Your task to perform on an android device: Open Google Image 0: 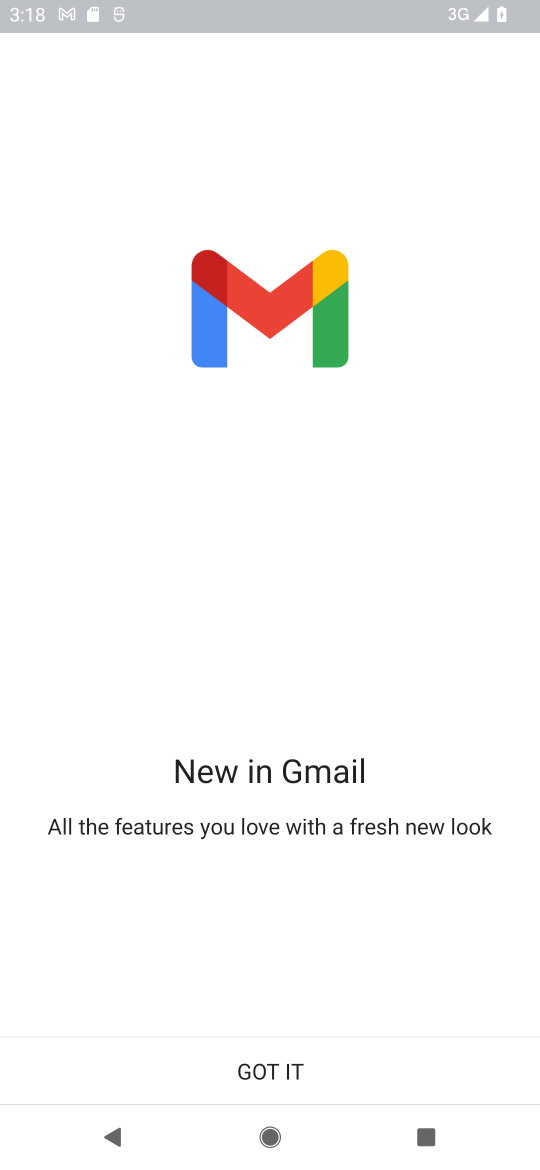
Step 0: press home button
Your task to perform on an android device: Open Google Image 1: 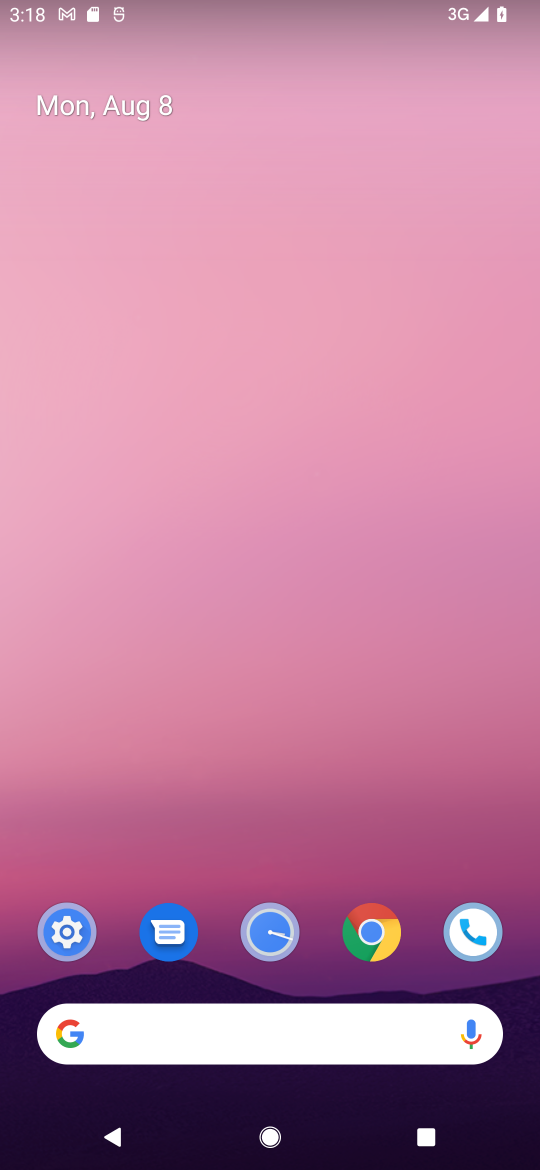
Step 1: drag from (351, 649) to (356, 24)
Your task to perform on an android device: Open Google Image 2: 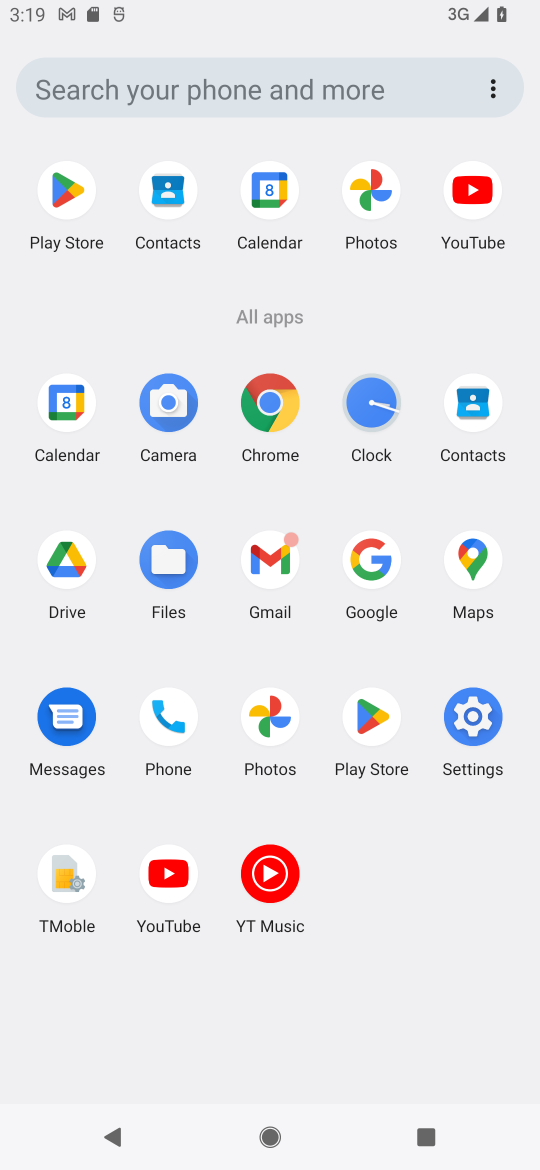
Step 2: click (382, 574)
Your task to perform on an android device: Open Google Image 3: 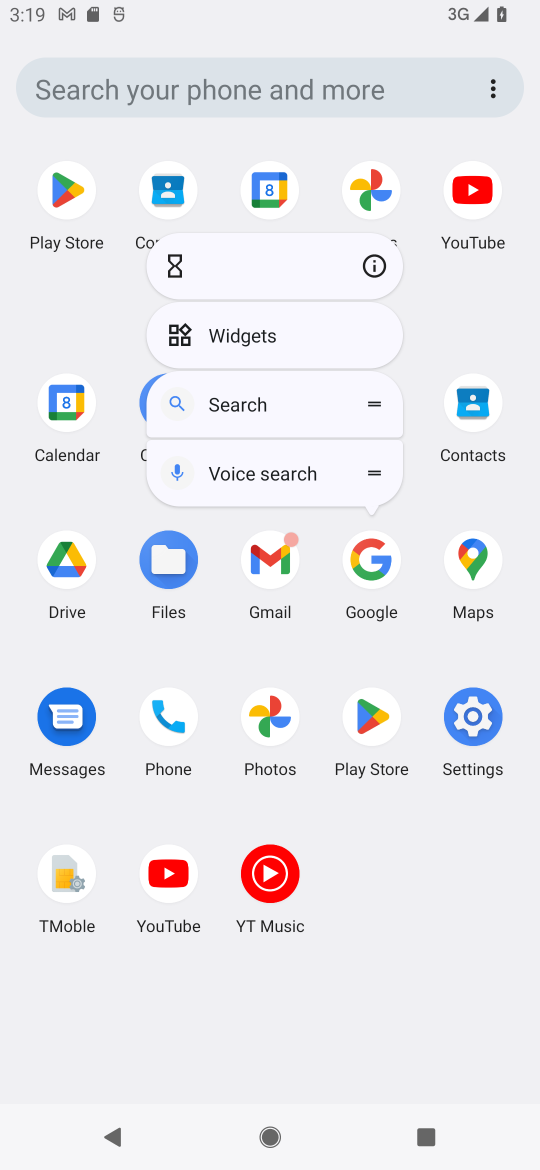
Step 3: click (379, 570)
Your task to perform on an android device: Open Google Image 4: 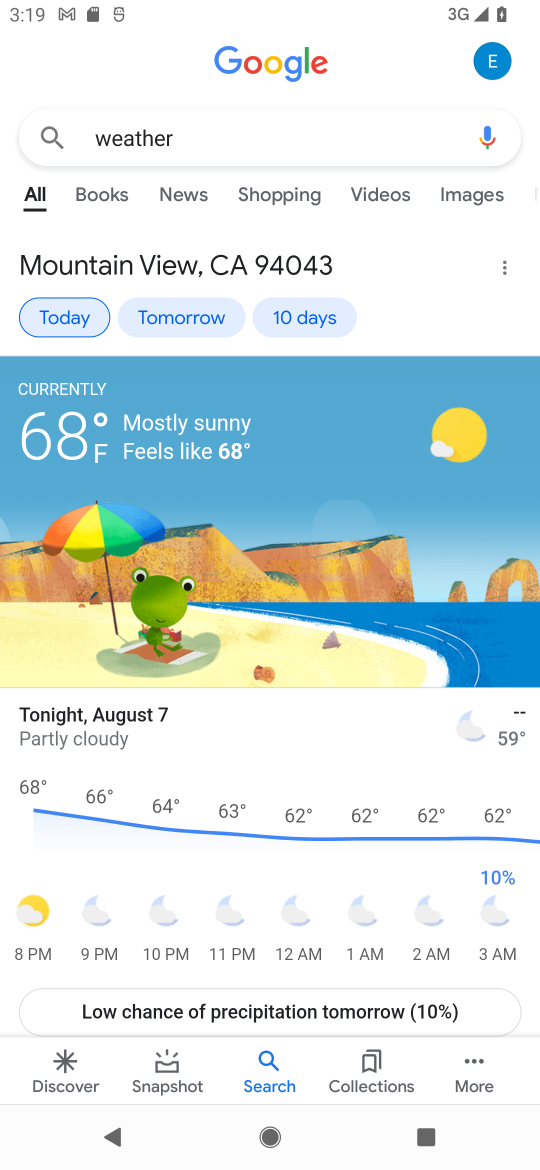
Step 4: task complete